Your task to perform on an android device: toggle priority inbox in the gmail app Image 0: 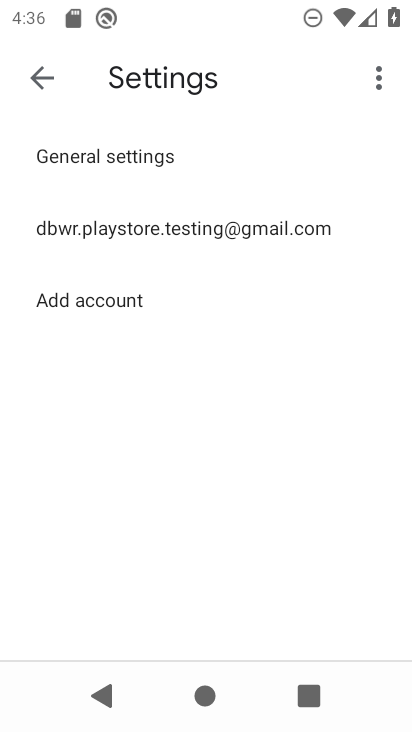
Step 0: press back button
Your task to perform on an android device: toggle priority inbox in the gmail app Image 1: 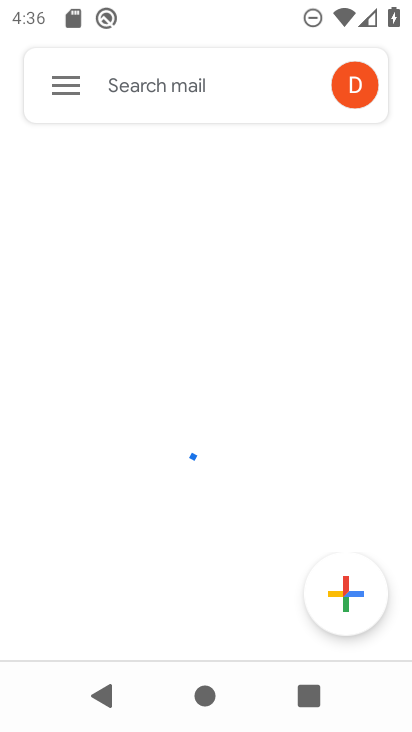
Step 1: press back button
Your task to perform on an android device: toggle priority inbox in the gmail app Image 2: 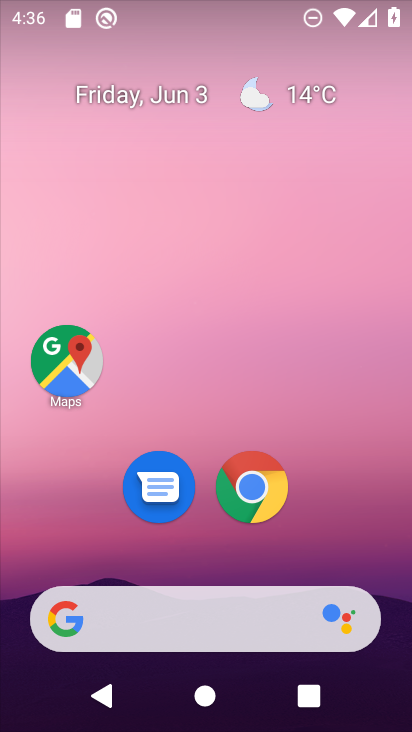
Step 2: drag from (210, 610) to (261, 22)
Your task to perform on an android device: toggle priority inbox in the gmail app Image 3: 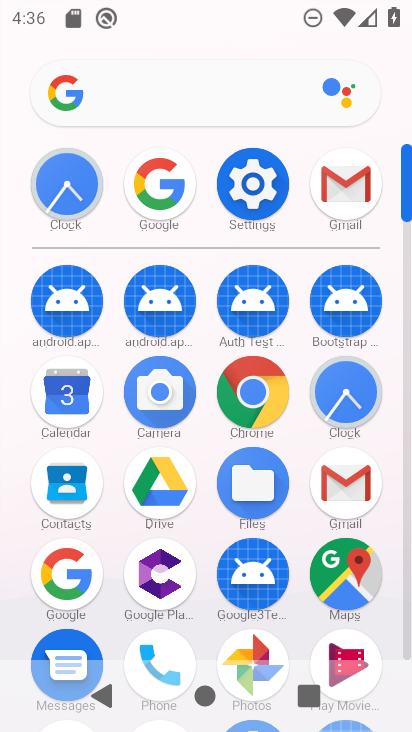
Step 3: click (342, 192)
Your task to perform on an android device: toggle priority inbox in the gmail app Image 4: 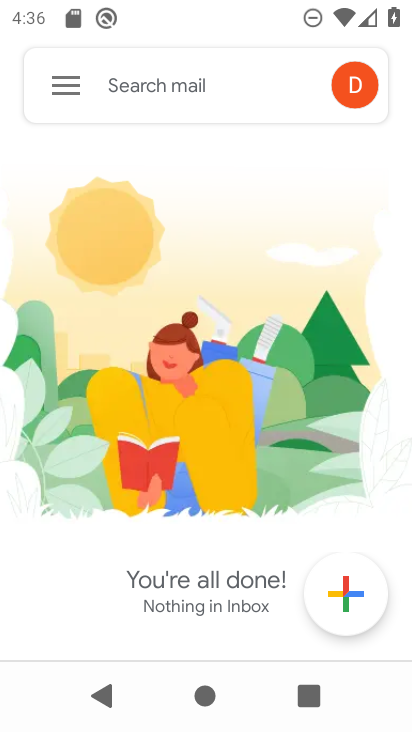
Step 4: click (59, 75)
Your task to perform on an android device: toggle priority inbox in the gmail app Image 5: 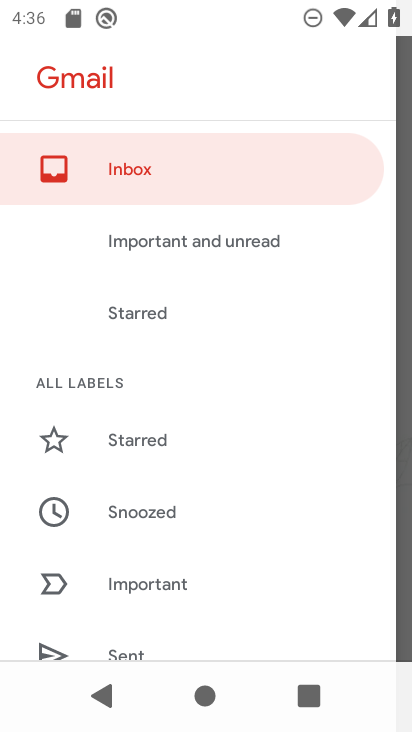
Step 5: drag from (213, 629) to (304, 17)
Your task to perform on an android device: toggle priority inbox in the gmail app Image 6: 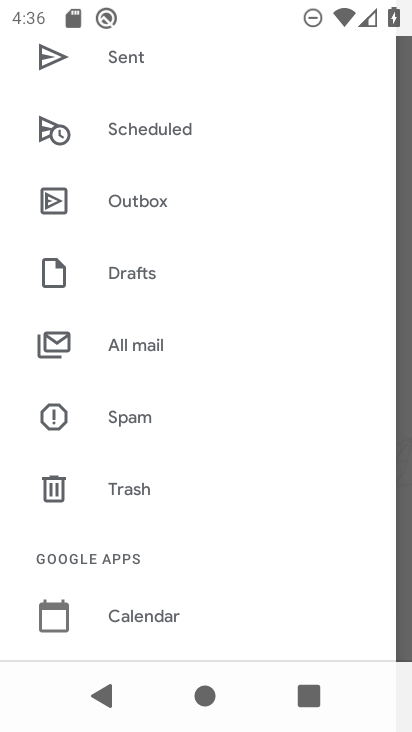
Step 6: drag from (151, 609) to (242, 43)
Your task to perform on an android device: toggle priority inbox in the gmail app Image 7: 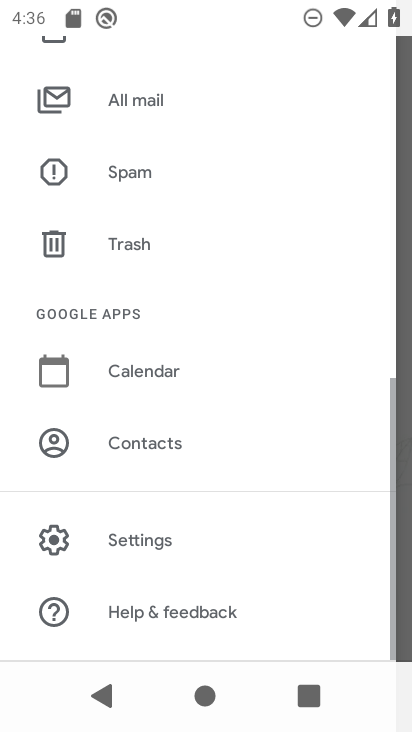
Step 7: click (129, 539)
Your task to perform on an android device: toggle priority inbox in the gmail app Image 8: 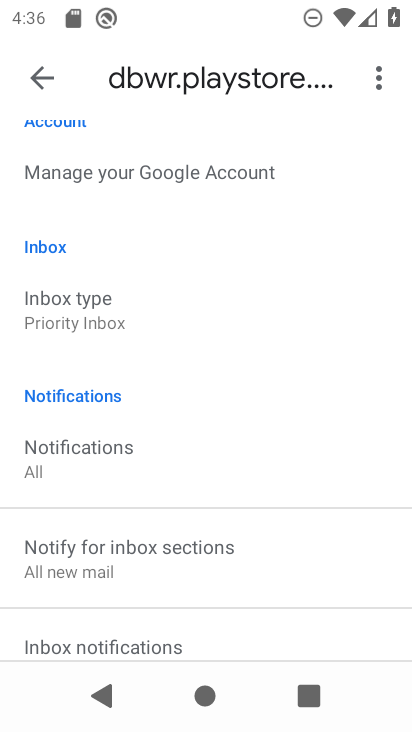
Step 8: click (91, 310)
Your task to perform on an android device: toggle priority inbox in the gmail app Image 9: 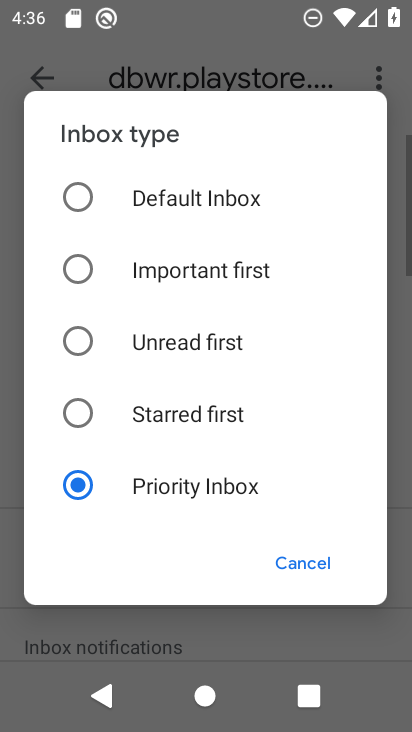
Step 9: click (88, 485)
Your task to perform on an android device: toggle priority inbox in the gmail app Image 10: 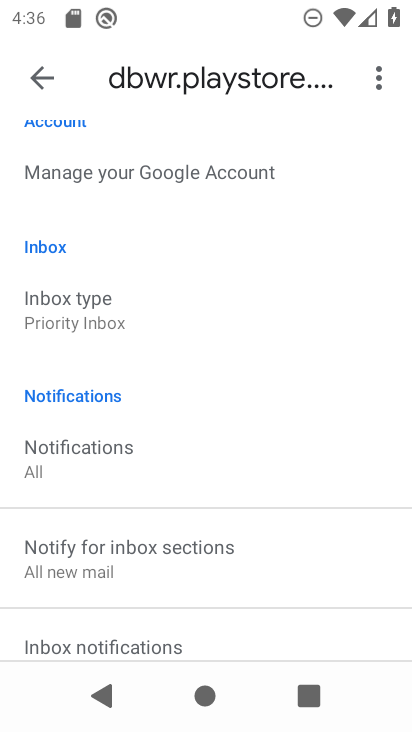
Step 10: task complete